Your task to perform on an android device: Go to CNN.com Image 0: 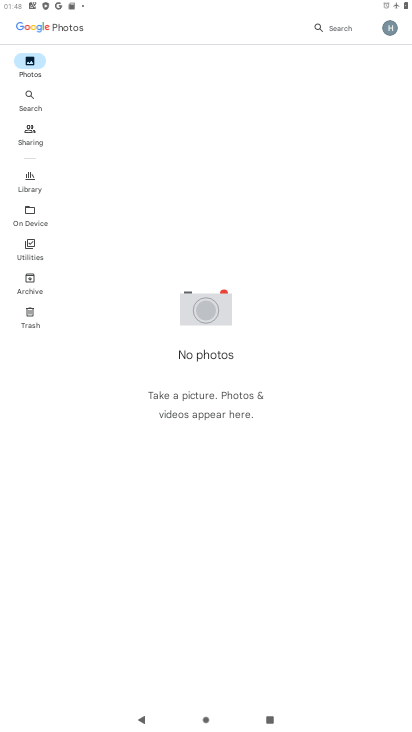
Step 0: press home button
Your task to perform on an android device: Go to CNN.com Image 1: 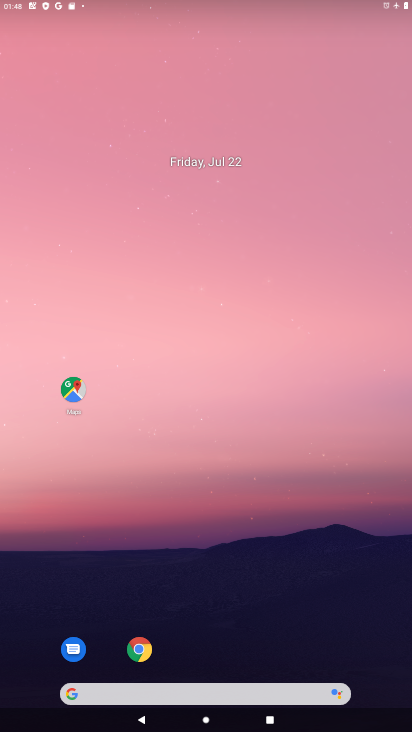
Step 1: drag from (264, 616) to (253, 77)
Your task to perform on an android device: Go to CNN.com Image 2: 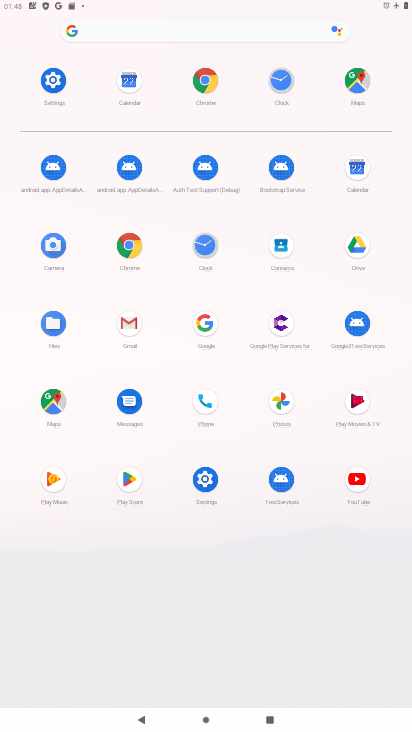
Step 2: click (206, 76)
Your task to perform on an android device: Go to CNN.com Image 3: 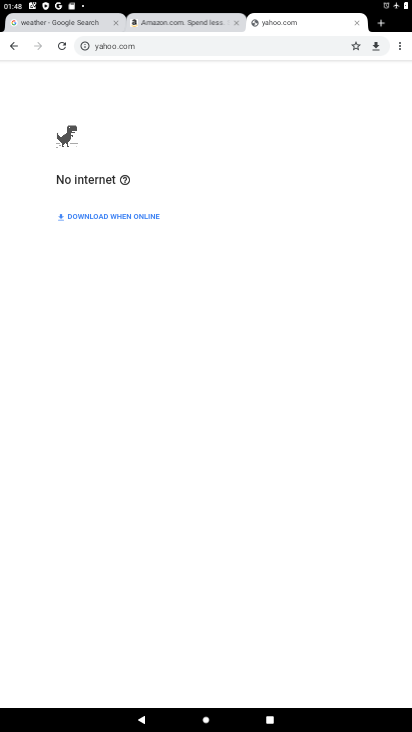
Step 3: click (292, 52)
Your task to perform on an android device: Go to CNN.com Image 4: 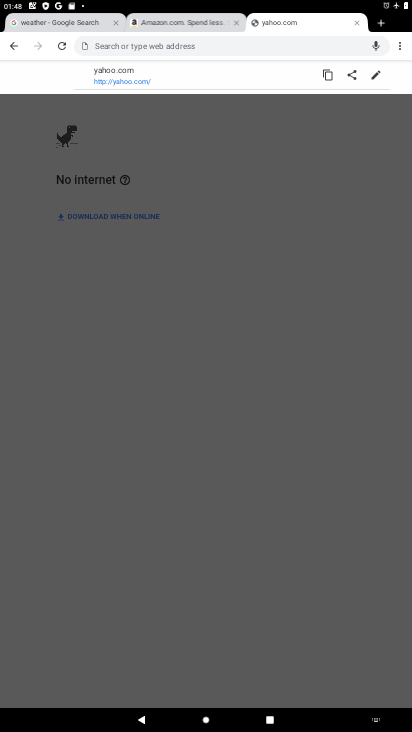
Step 4: type "cnn.com"
Your task to perform on an android device: Go to CNN.com Image 5: 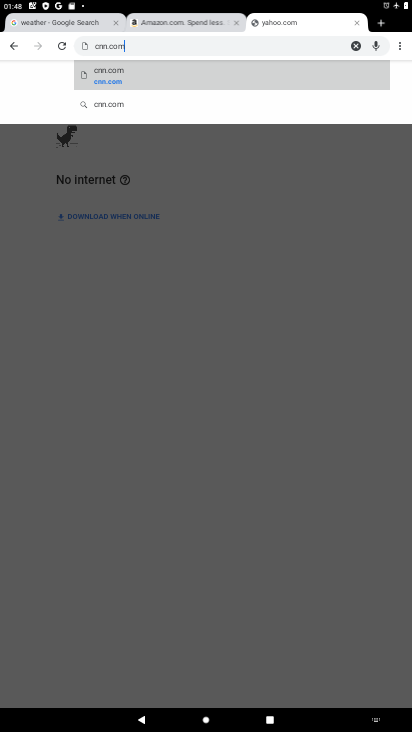
Step 5: click (106, 73)
Your task to perform on an android device: Go to CNN.com Image 6: 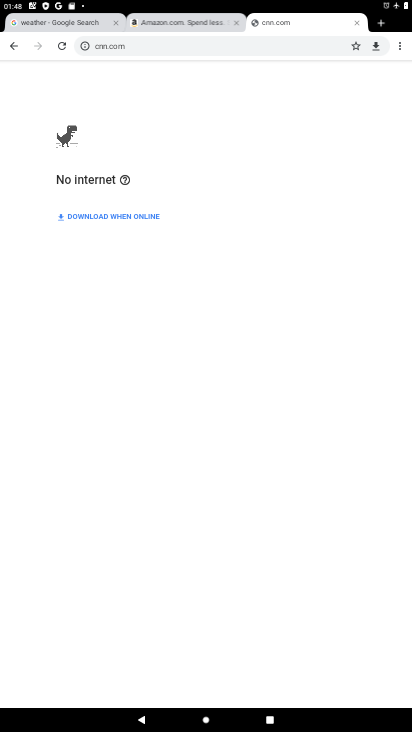
Step 6: task complete